Your task to perform on an android device: Open internet settings Image 0: 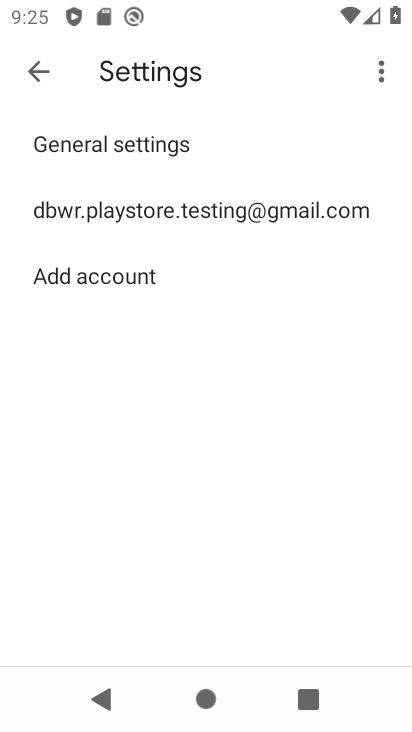
Step 0: press home button
Your task to perform on an android device: Open internet settings Image 1: 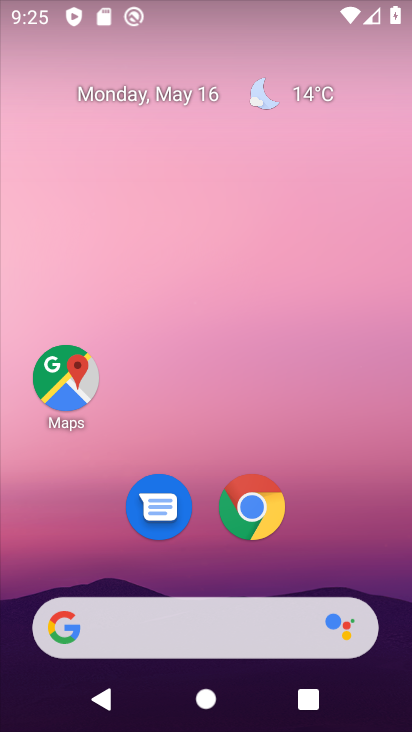
Step 1: drag from (156, 598) to (235, 126)
Your task to perform on an android device: Open internet settings Image 2: 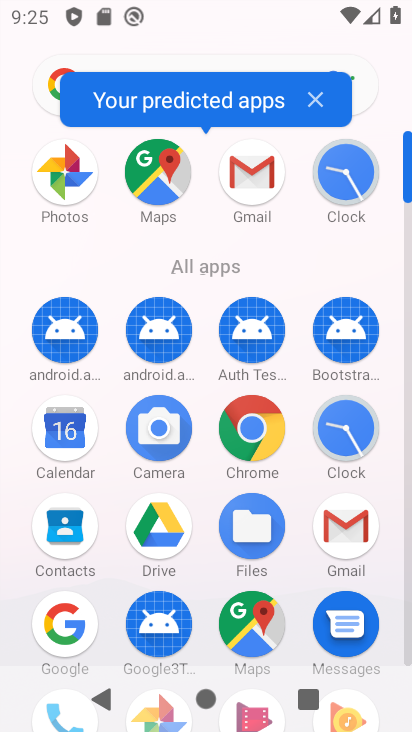
Step 2: drag from (145, 676) to (240, 314)
Your task to perform on an android device: Open internet settings Image 3: 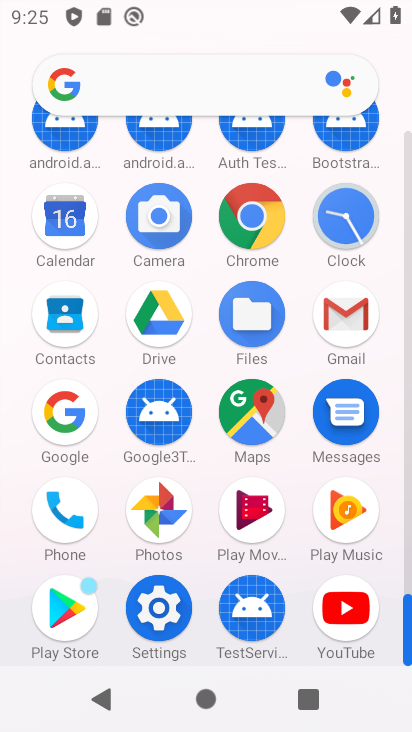
Step 3: click (174, 617)
Your task to perform on an android device: Open internet settings Image 4: 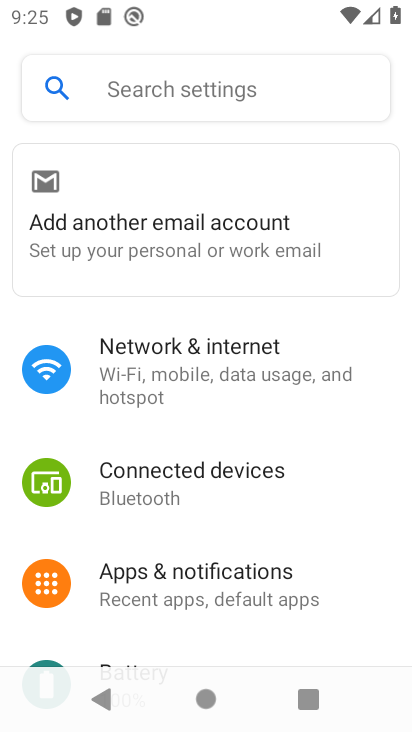
Step 4: click (246, 377)
Your task to perform on an android device: Open internet settings Image 5: 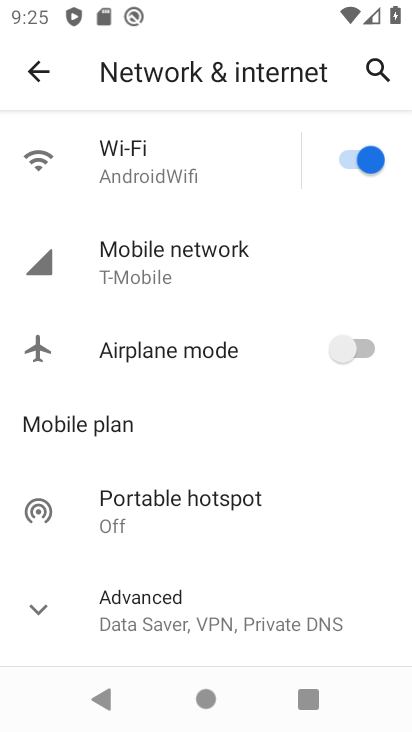
Step 5: click (246, 289)
Your task to perform on an android device: Open internet settings Image 6: 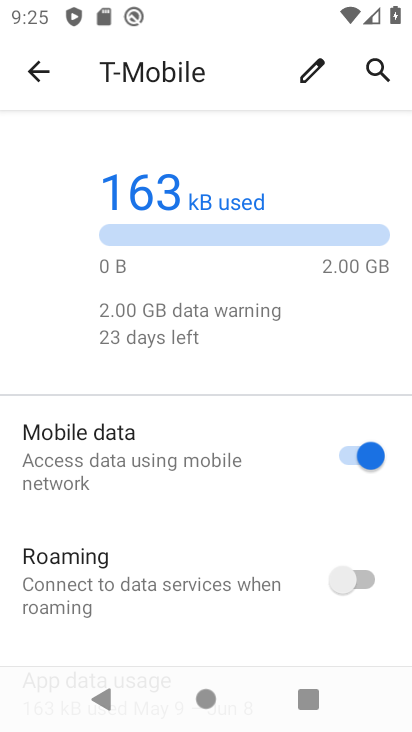
Step 6: task complete